Your task to perform on an android device: Open notification settings Image 0: 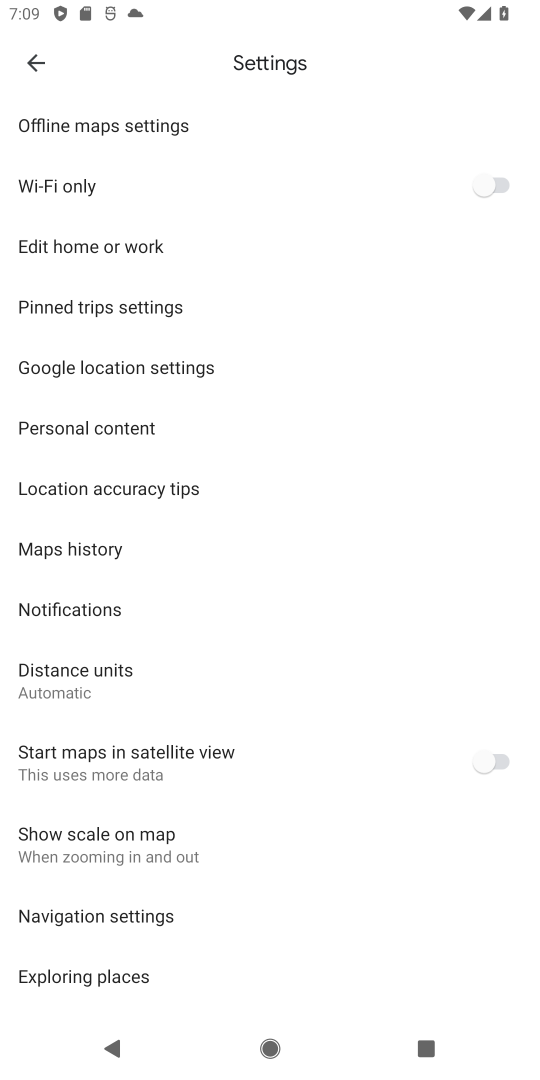
Step 0: click (91, 577)
Your task to perform on an android device: Open notification settings Image 1: 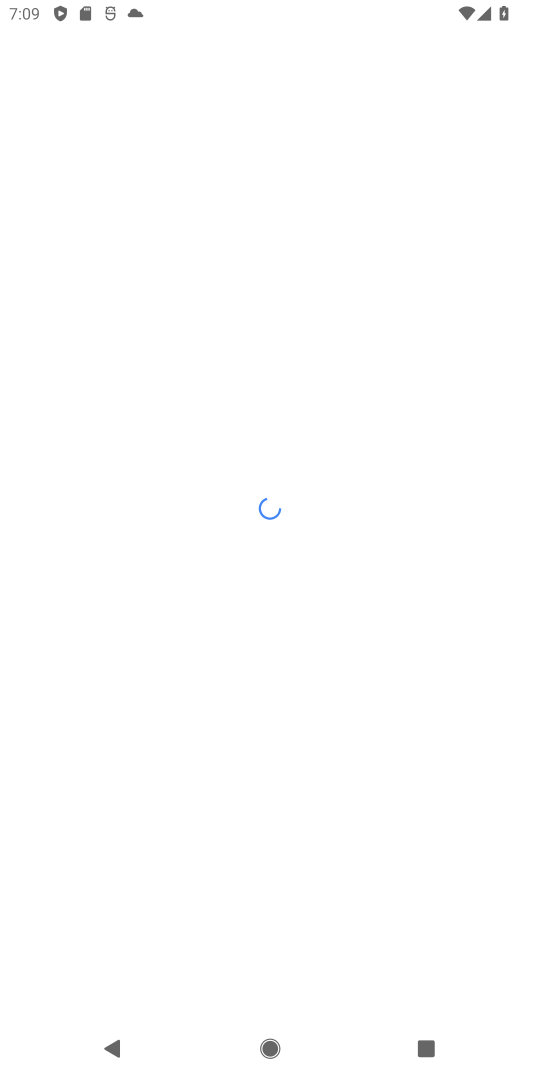
Step 1: press back button
Your task to perform on an android device: Open notification settings Image 2: 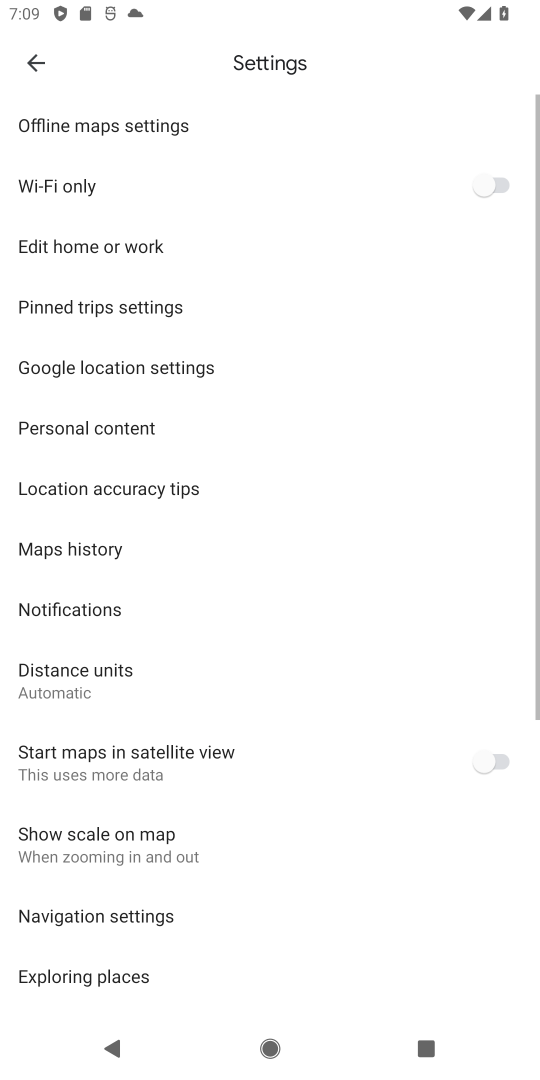
Step 2: press back button
Your task to perform on an android device: Open notification settings Image 3: 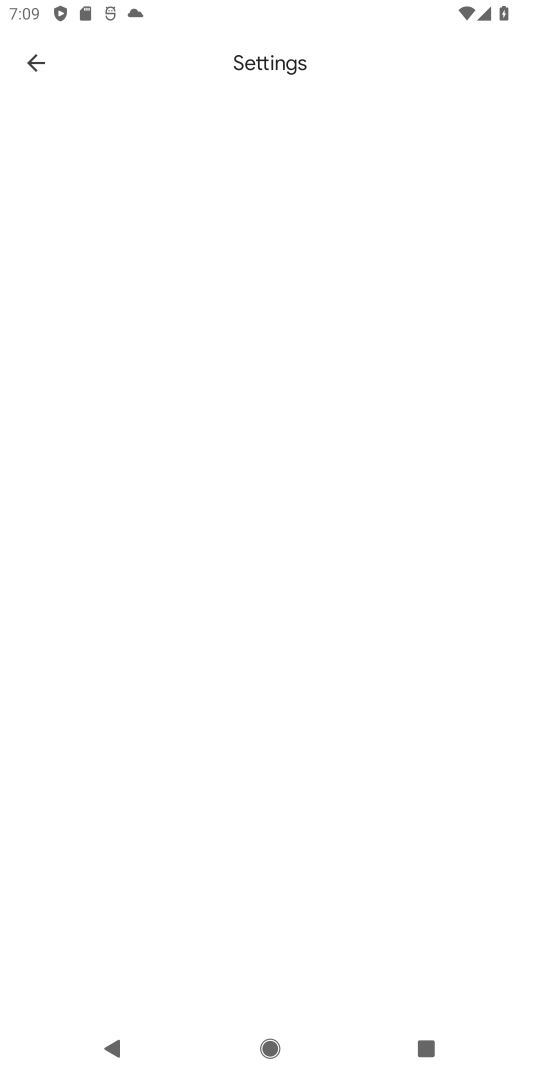
Step 3: press back button
Your task to perform on an android device: Open notification settings Image 4: 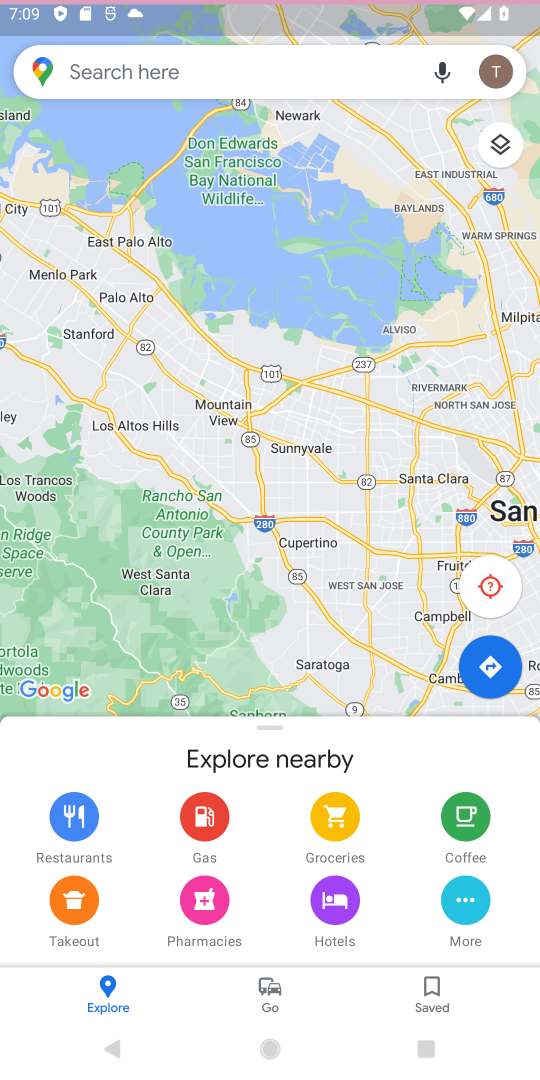
Step 4: press back button
Your task to perform on an android device: Open notification settings Image 5: 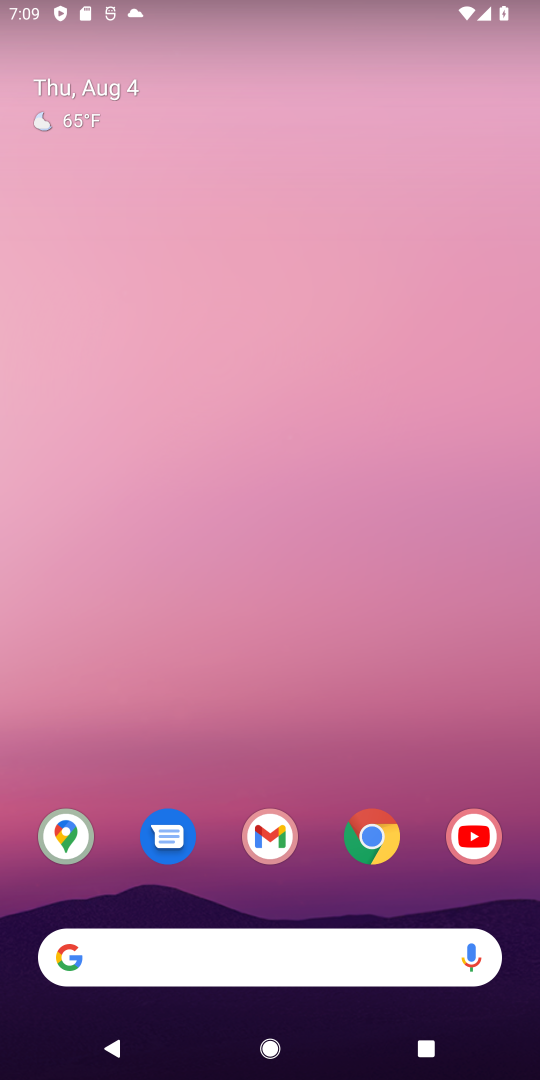
Step 5: press back button
Your task to perform on an android device: Open notification settings Image 6: 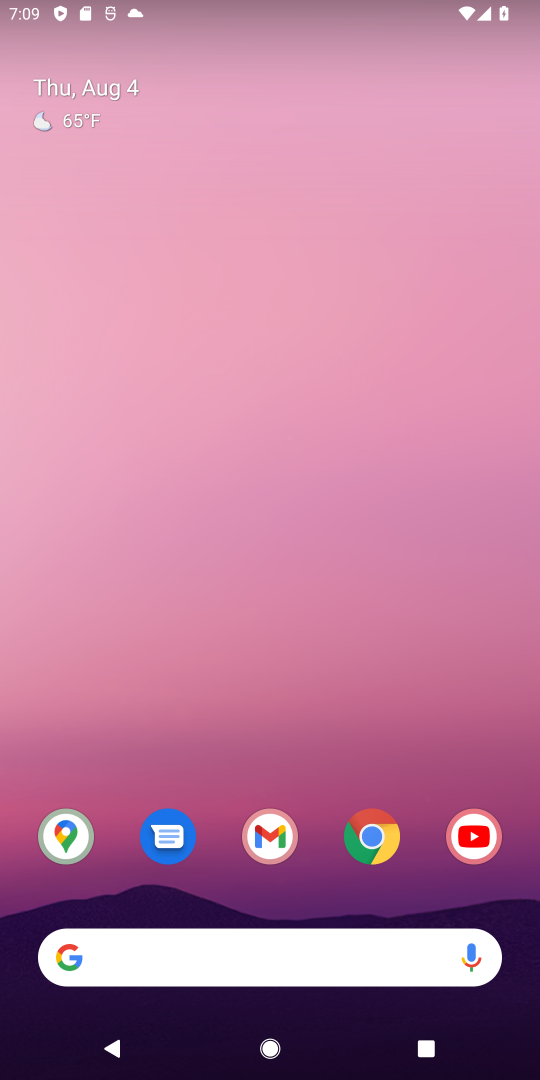
Step 6: drag from (258, 741) to (377, 22)
Your task to perform on an android device: Open notification settings Image 7: 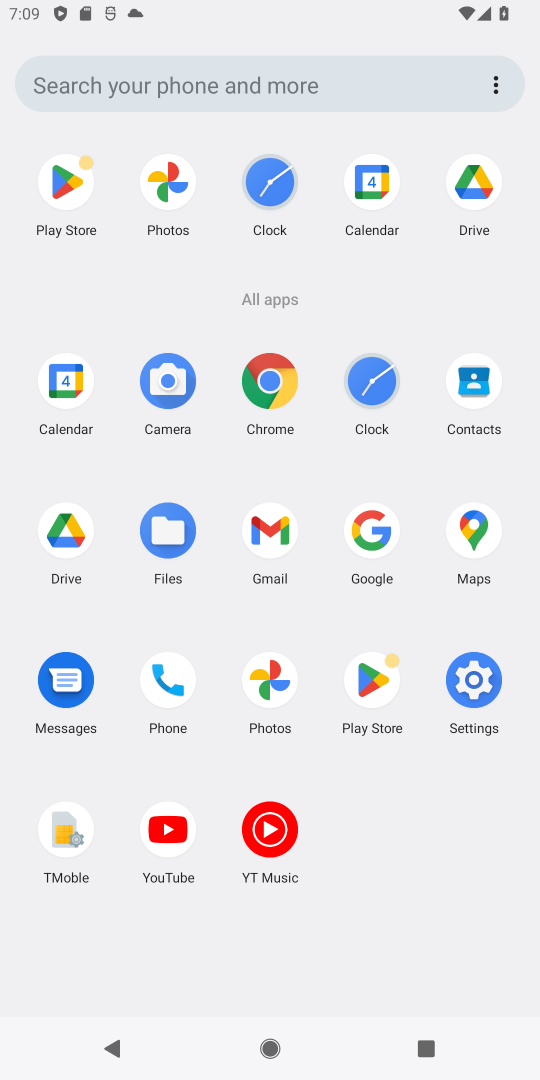
Step 7: click (479, 679)
Your task to perform on an android device: Open notification settings Image 8: 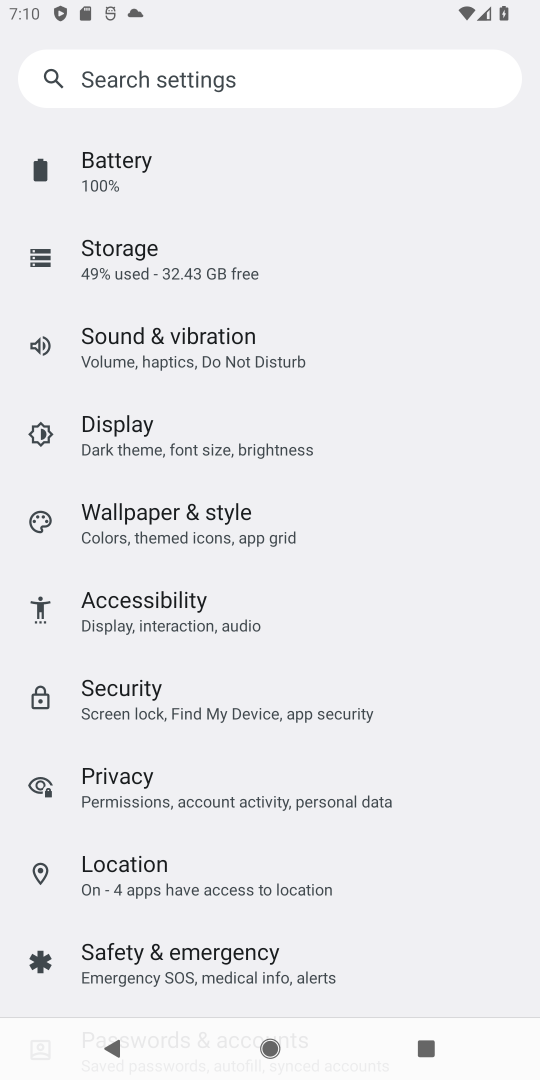
Step 8: drag from (202, 939) to (303, 146)
Your task to perform on an android device: Open notification settings Image 9: 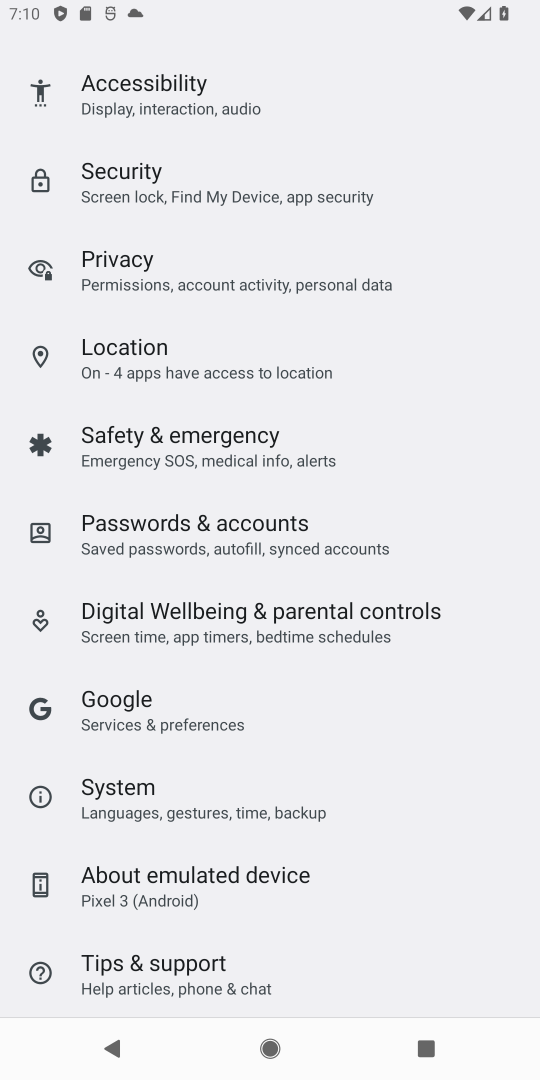
Step 9: drag from (267, 237) to (367, 95)
Your task to perform on an android device: Open notification settings Image 10: 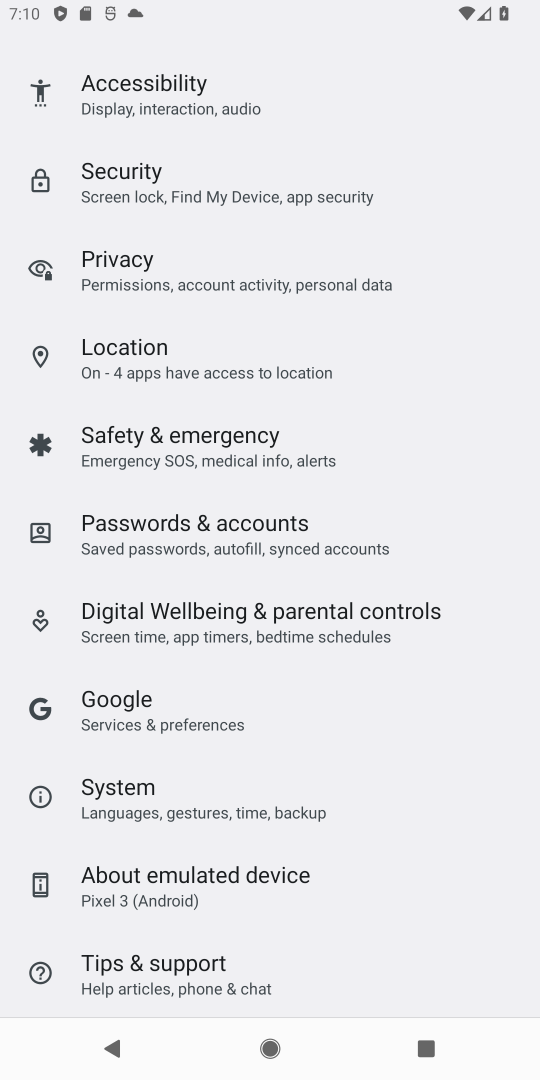
Step 10: drag from (345, 176) to (226, 1029)
Your task to perform on an android device: Open notification settings Image 11: 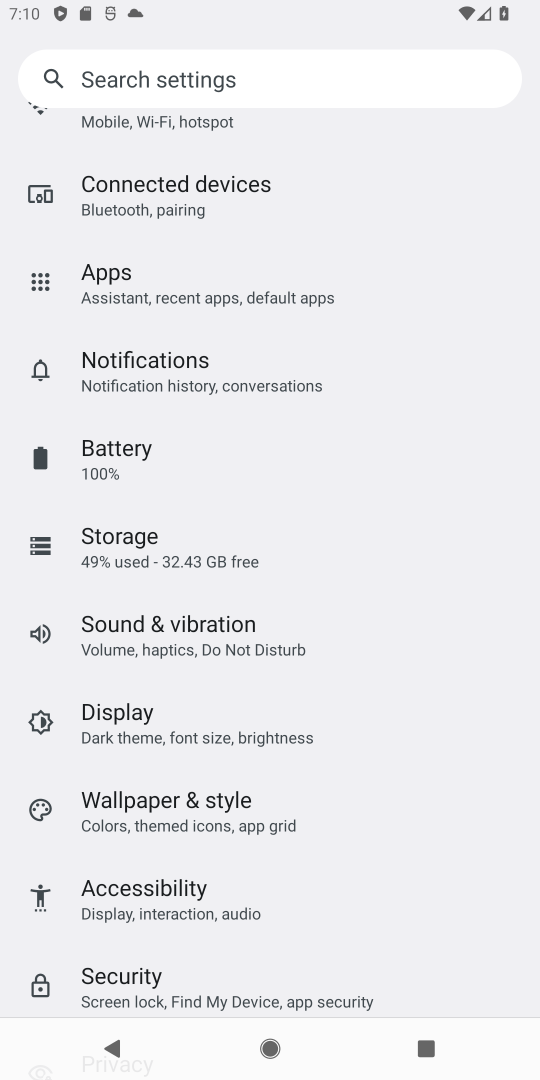
Step 11: drag from (310, 258) to (241, 1075)
Your task to perform on an android device: Open notification settings Image 12: 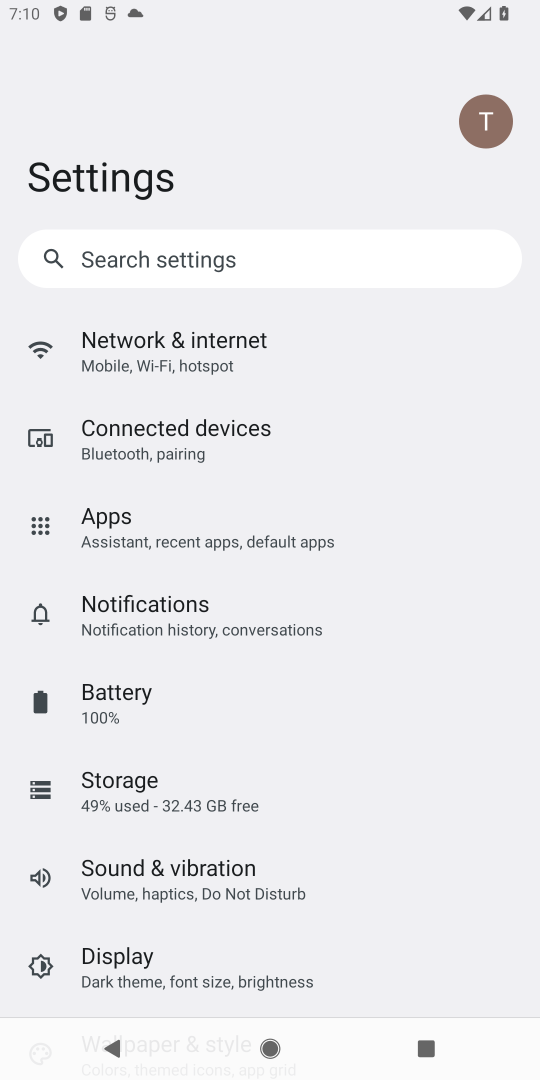
Step 12: click (157, 605)
Your task to perform on an android device: Open notification settings Image 13: 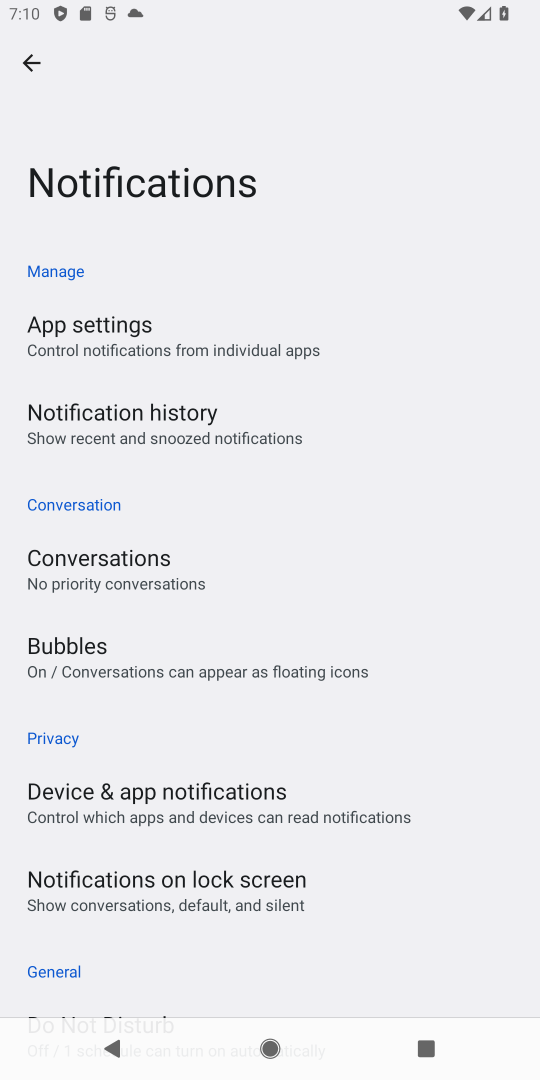
Step 13: task complete